Your task to perform on an android device: Show me popular videos on Youtube Image 0: 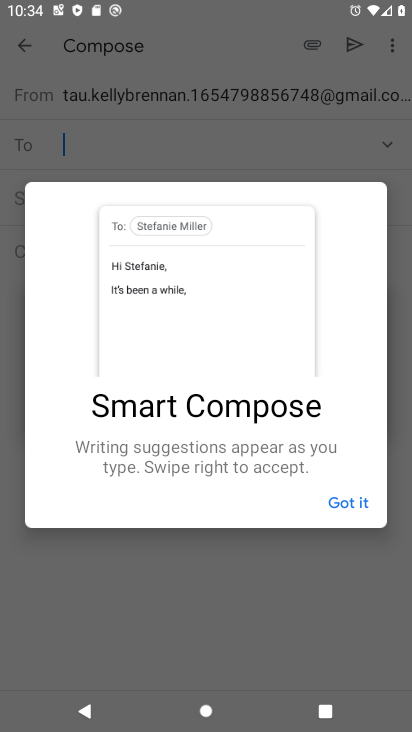
Step 0: press home button
Your task to perform on an android device: Show me popular videos on Youtube Image 1: 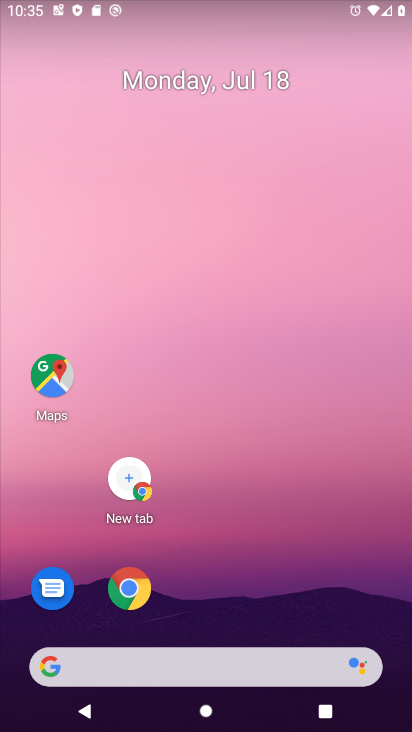
Step 1: drag from (218, 591) to (152, 65)
Your task to perform on an android device: Show me popular videos on Youtube Image 2: 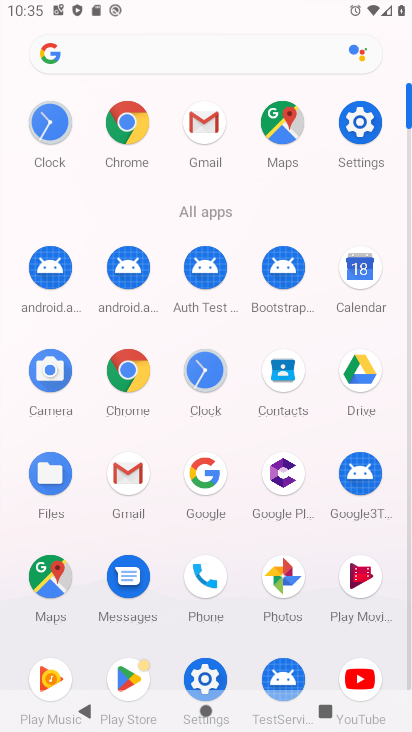
Step 2: click (367, 681)
Your task to perform on an android device: Show me popular videos on Youtube Image 3: 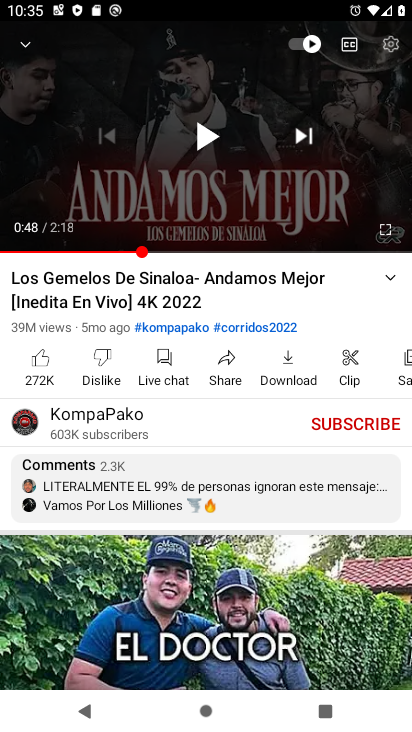
Step 3: click (34, 52)
Your task to perform on an android device: Show me popular videos on Youtube Image 4: 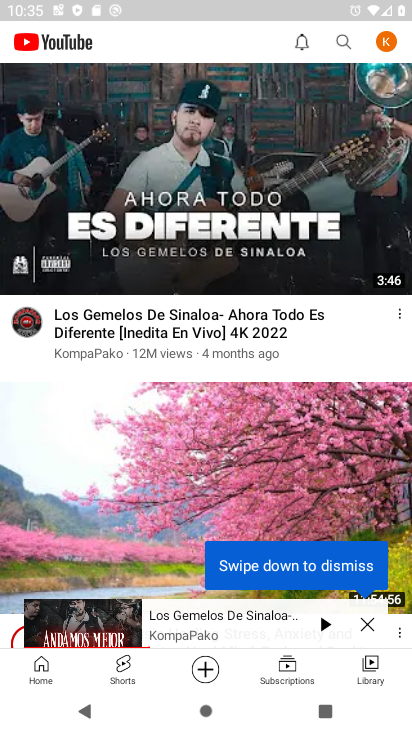
Step 4: click (373, 668)
Your task to perform on an android device: Show me popular videos on Youtube Image 5: 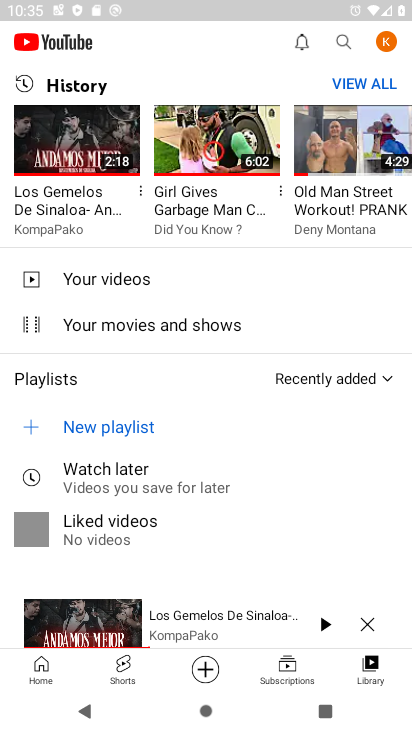
Step 5: click (35, 670)
Your task to perform on an android device: Show me popular videos on Youtube Image 6: 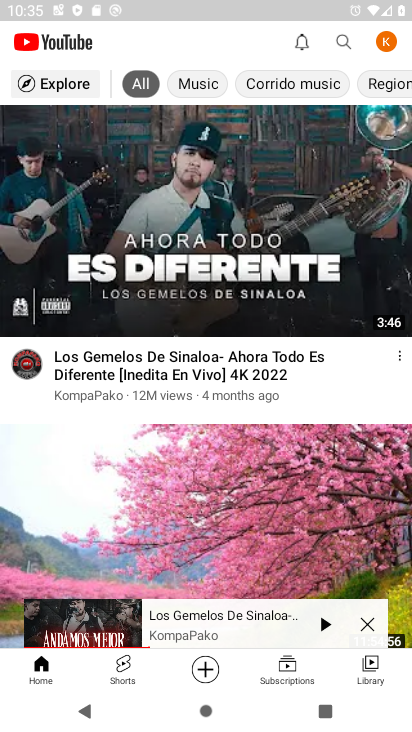
Step 6: click (43, 80)
Your task to perform on an android device: Show me popular videos on Youtube Image 7: 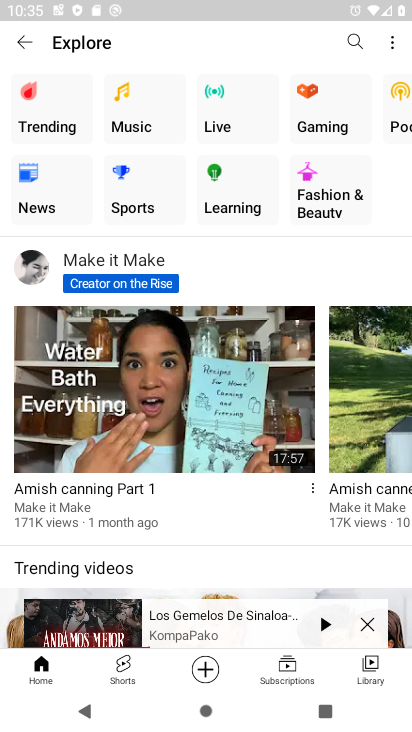
Step 7: click (31, 88)
Your task to perform on an android device: Show me popular videos on Youtube Image 8: 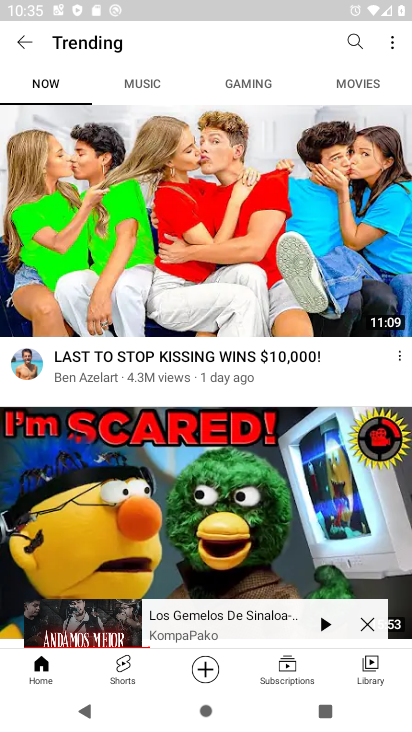
Step 8: task complete